Your task to perform on an android device: move an email to a new category in the gmail app Image 0: 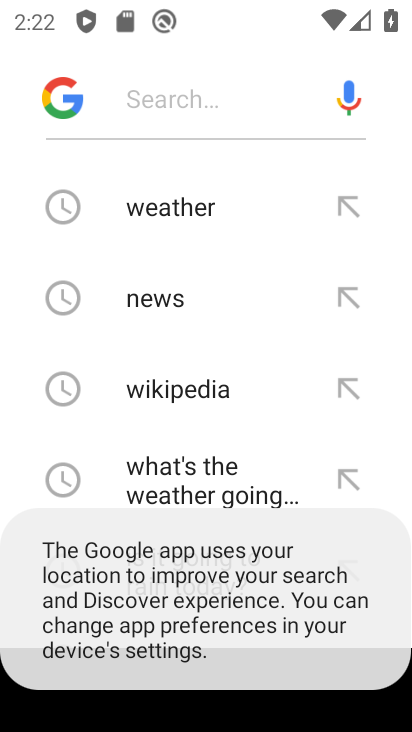
Step 0: press home button
Your task to perform on an android device: move an email to a new category in the gmail app Image 1: 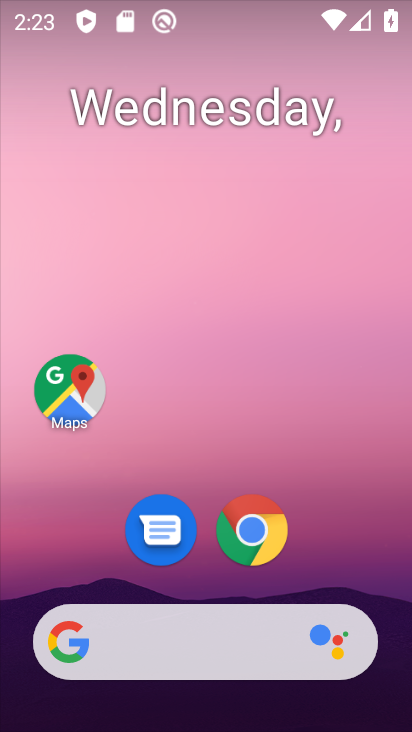
Step 1: drag from (196, 584) to (178, 9)
Your task to perform on an android device: move an email to a new category in the gmail app Image 2: 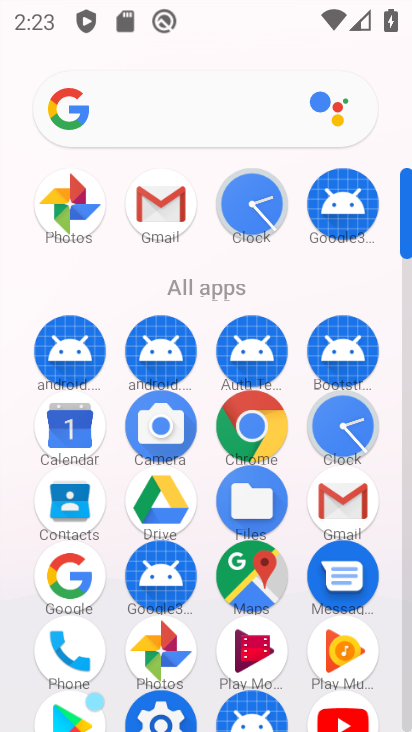
Step 2: click (140, 177)
Your task to perform on an android device: move an email to a new category in the gmail app Image 3: 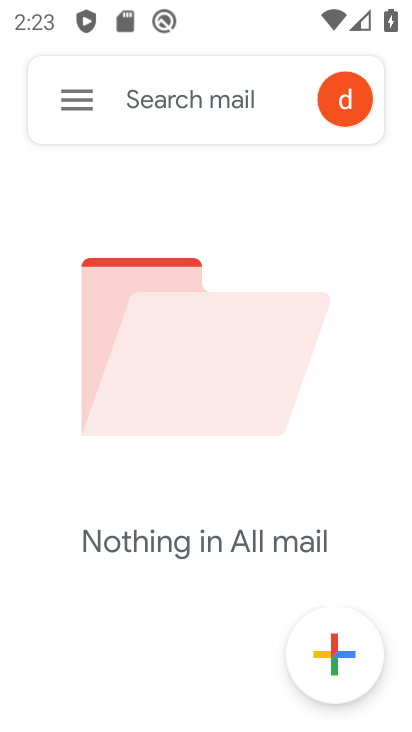
Step 3: click (79, 94)
Your task to perform on an android device: move an email to a new category in the gmail app Image 4: 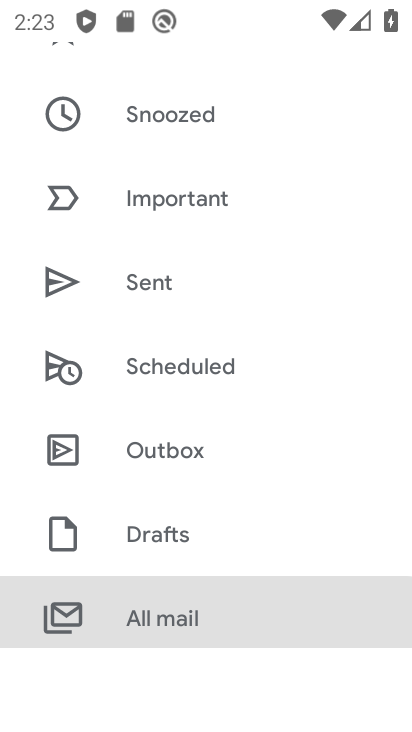
Step 4: click (201, 581)
Your task to perform on an android device: move an email to a new category in the gmail app Image 5: 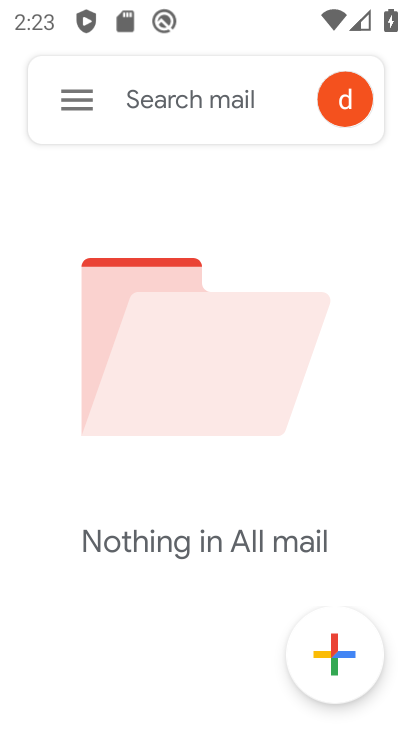
Step 5: click (201, 581)
Your task to perform on an android device: move an email to a new category in the gmail app Image 6: 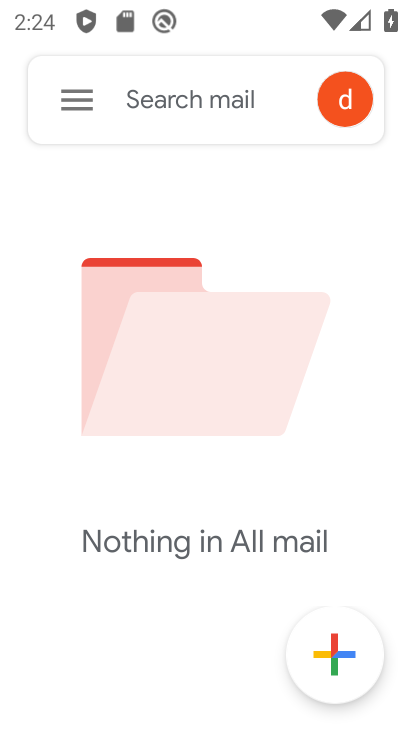
Step 6: task complete